Your task to perform on an android device: add a contact Image 0: 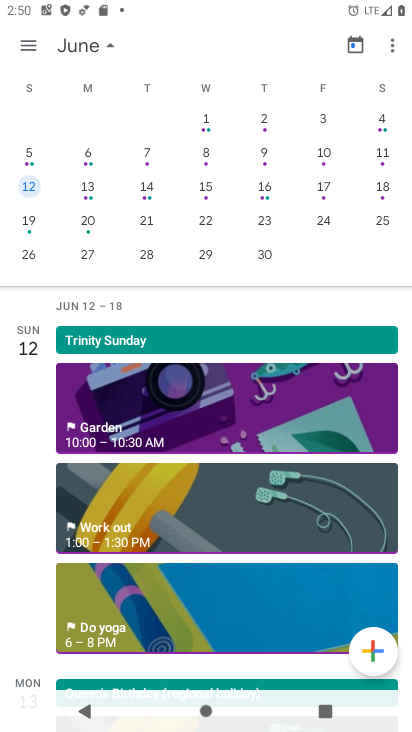
Step 0: press home button
Your task to perform on an android device: add a contact Image 1: 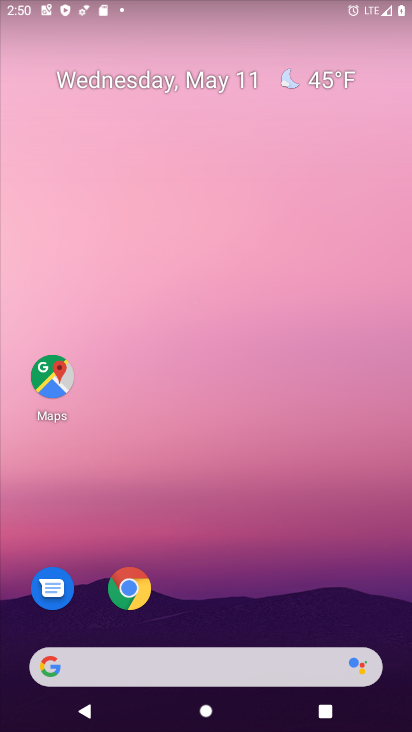
Step 1: drag from (200, 598) to (200, 279)
Your task to perform on an android device: add a contact Image 2: 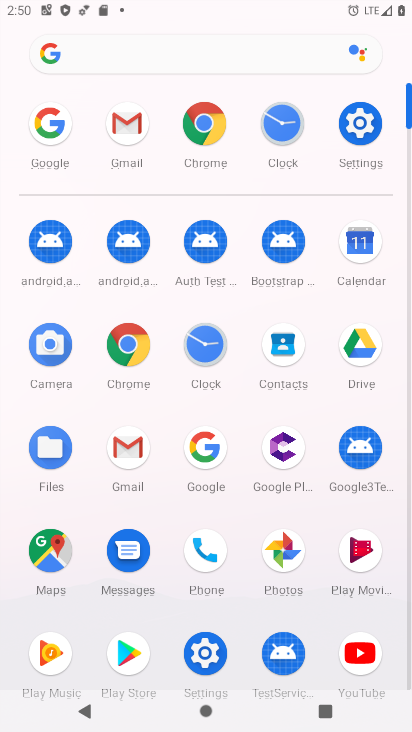
Step 2: click (295, 342)
Your task to perform on an android device: add a contact Image 3: 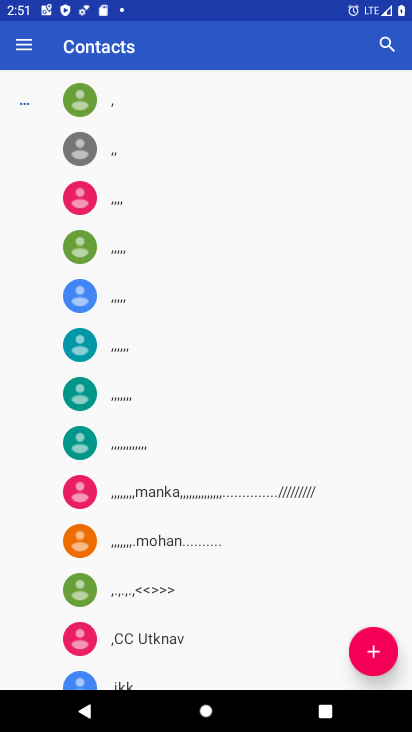
Step 3: drag from (199, 606) to (208, 457)
Your task to perform on an android device: add a contact Image 4: 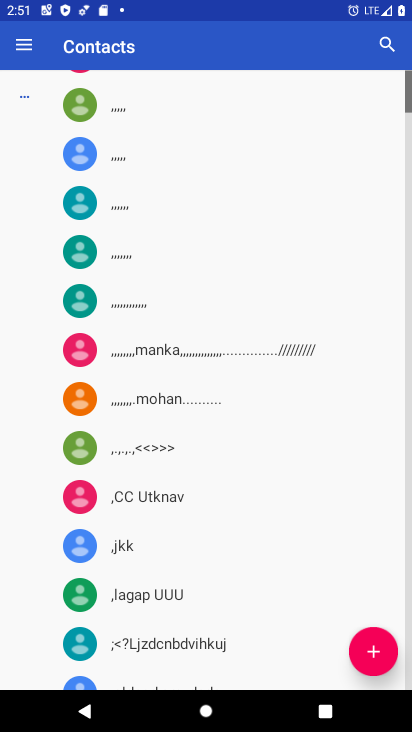
Step 4: click (368, 653)
Your task to perform on an android device: add a contact Image 5: 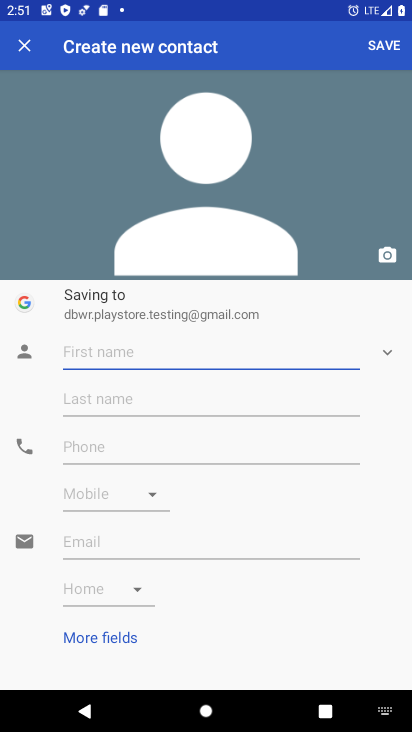
Step 5: type ""
Your task to perform on an android device: add a contact Image 6: 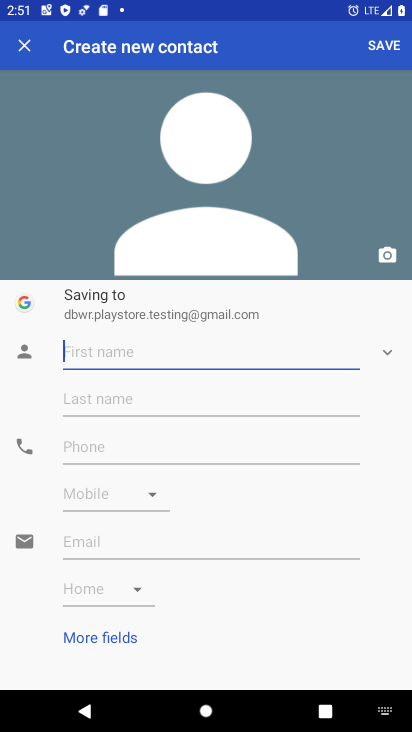
Step 6: type "jkb"
Your task to perform on an android device: add a contact Image 7: 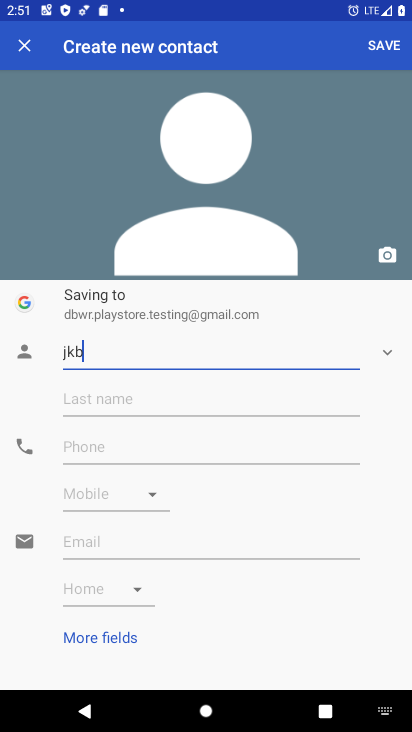
Step 7: click (112, 451)
Your task to perform on an android device: add a contact Image 8: 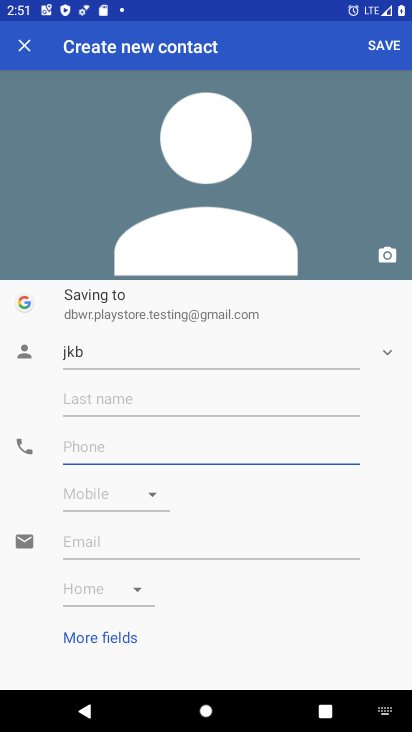
Step 8: type "89868757587"
Your task to perform on an android device: add a contact Image 9: 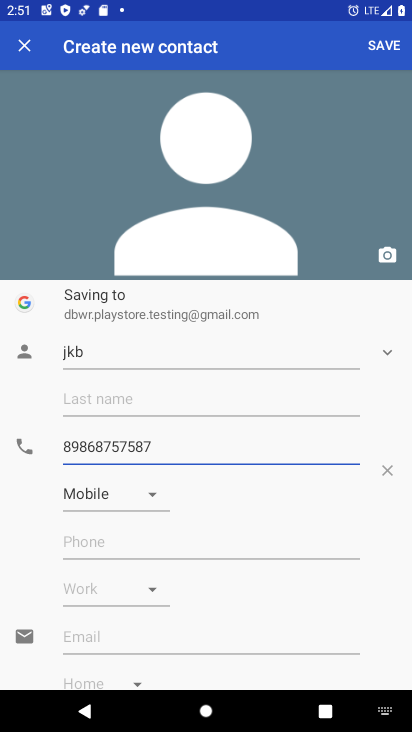
Step 9: click (372, 33)
Your task to perform on an android device: add a contact Image 10: 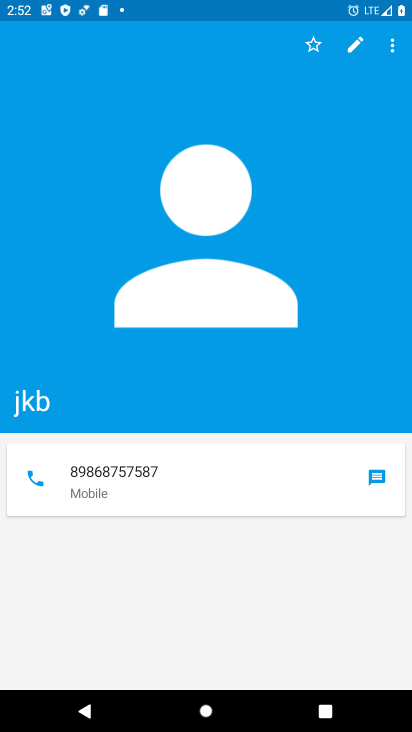
Step 10: task complete